Your task to perform on an android device: Check the news Image 0: 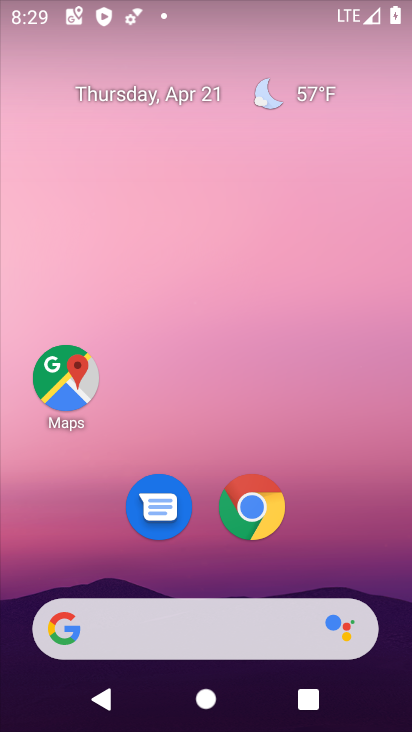
Step 0: click (252, 508)
Your task to perform on an android device: Check the news Image 1: 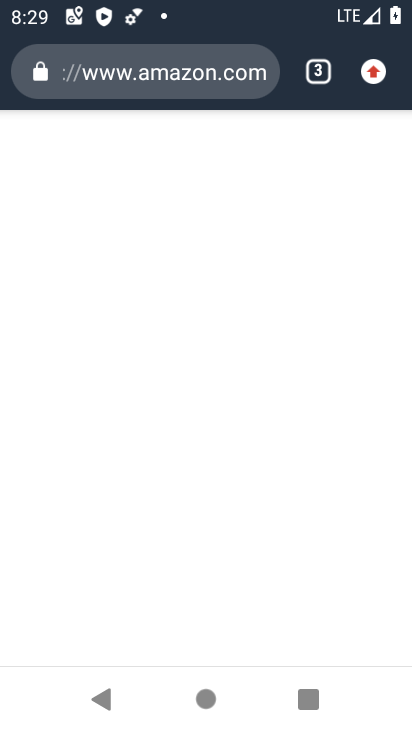
Step 1: click (214, 68)
Your task to perform on an android device: Check the news Image 2: 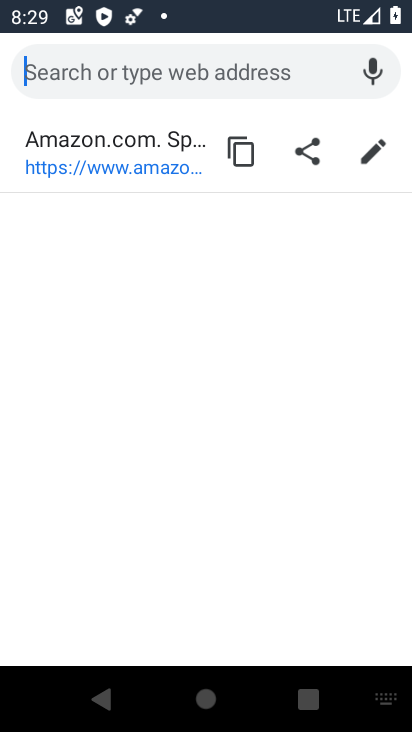
Step 2: click (214, 68)
Your task to perform on an android device: Check the news Image 3: 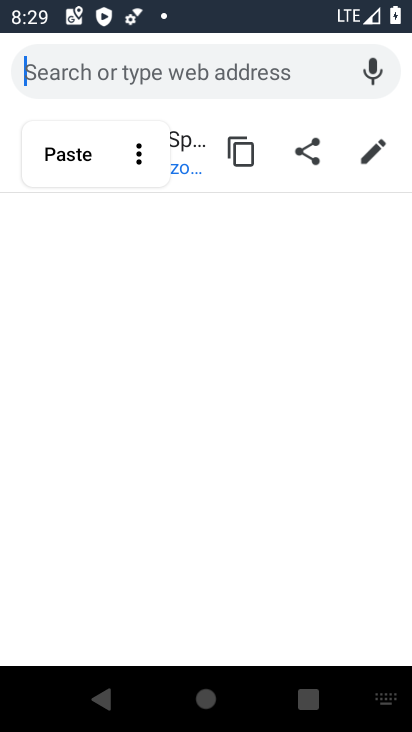
Step 3: type "news"
Your task to perform on an android device: Check the news Image 4: 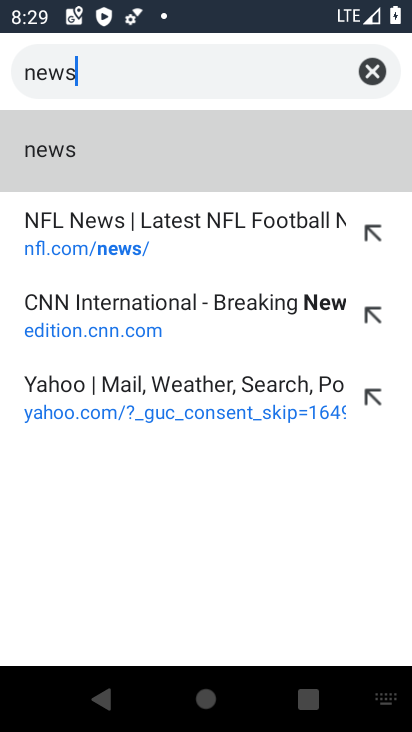
Step 4: click (24, 150)
Your task to perform on an android device: Check the news Image 5: 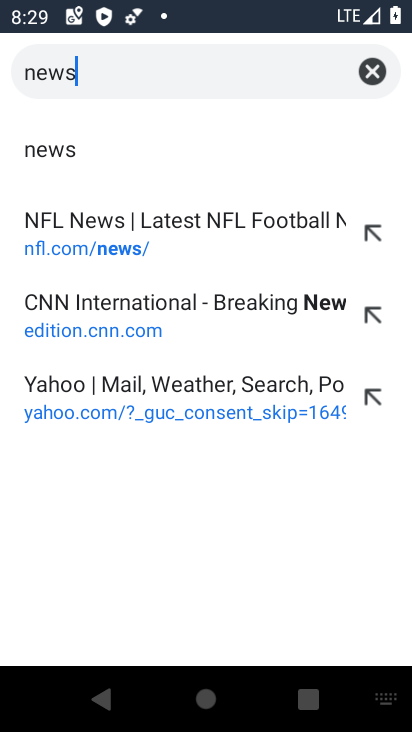
Step 5: click (31, 149)
Your task to perform on an android device: Check the news Image 6: 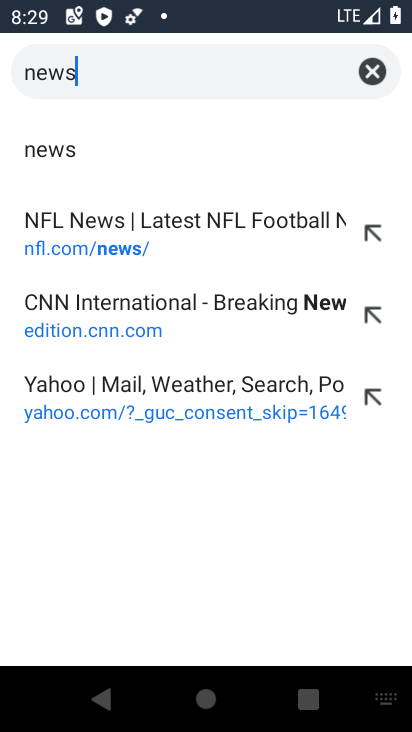
Step 6: click (31, 149)
Your task to perform on an android device: Check the news Image 7: 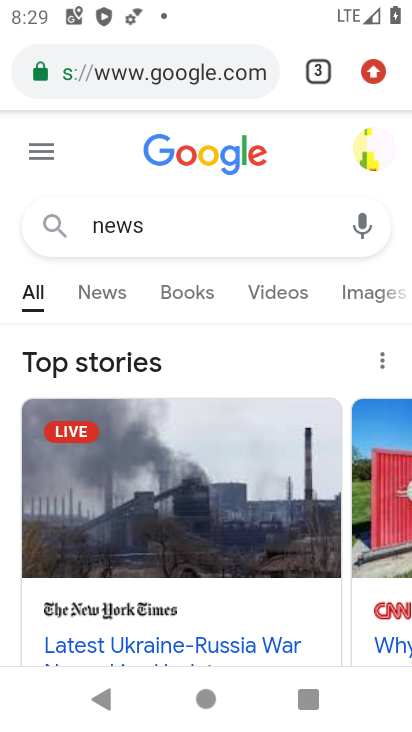
Step 7: task complete